Your task to perform on an android device: Open Google Chrome and click the shortcut for Amazon.com Image 0: 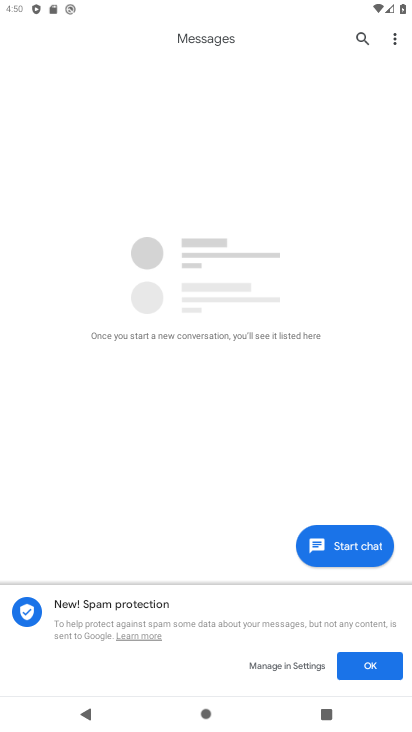
Step 0: press home button
Your task to perform on an android device: Open Google Chrome and click the shortcut for Amazon.com Image 1: 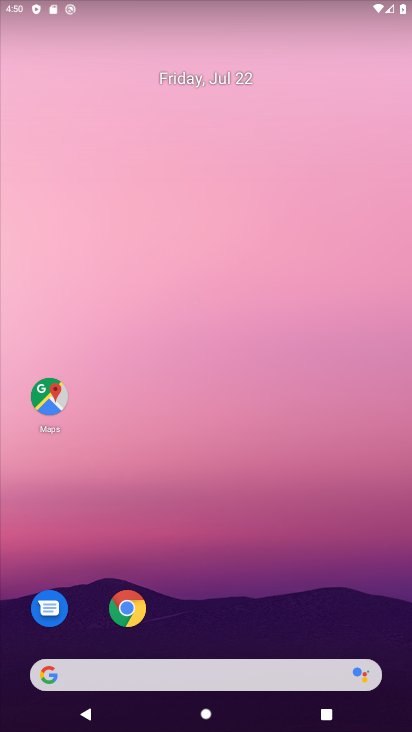
Step 1: click (140, 617)
Your task to perform on an android device: Open Google Chrome and click the shortcut for Amazon.com Image 2: 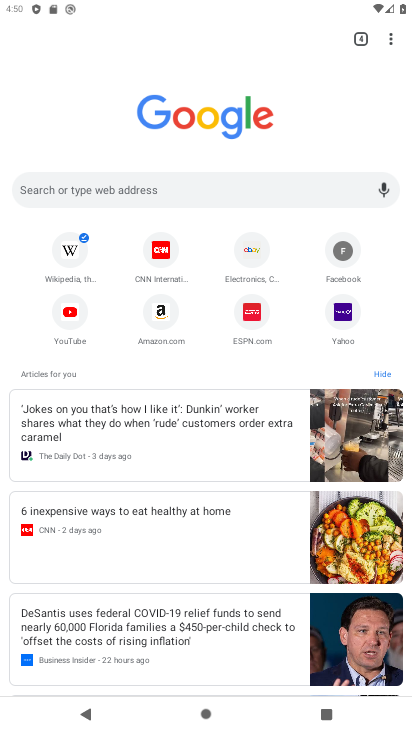
Step 2: click (157, 313)
Your task to perform on an android device: Open Google Chrome and click the shortcut for Amazon.com Image 3: 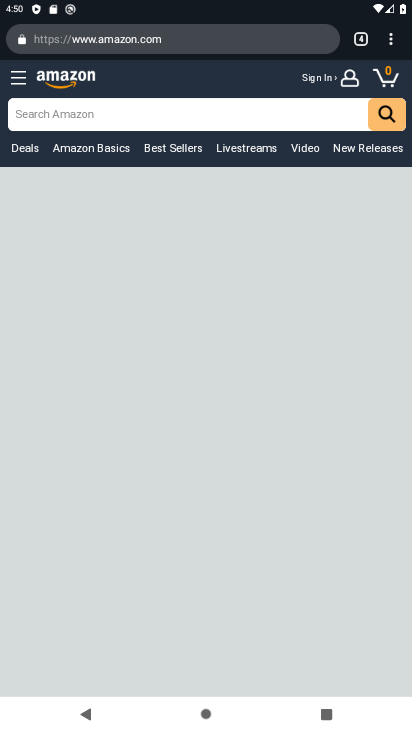
Step 3: task complete